Your task to perform on an android device: Go to wifi settings Image 0: 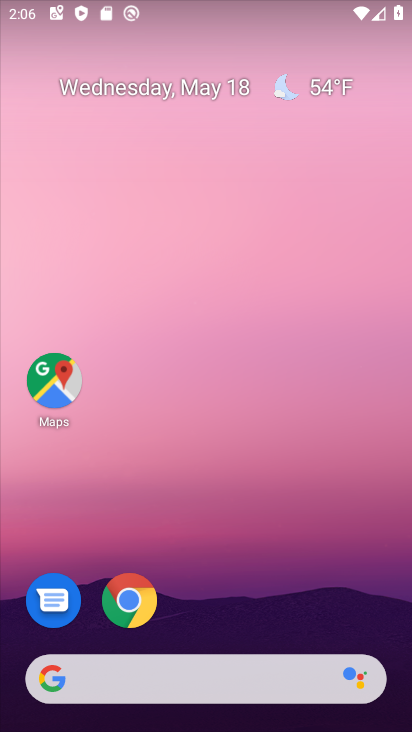
Step 0: drag from (187, 12) to (251, 524)
Your task to perform on an android device: Go to wifi settings Image 1: 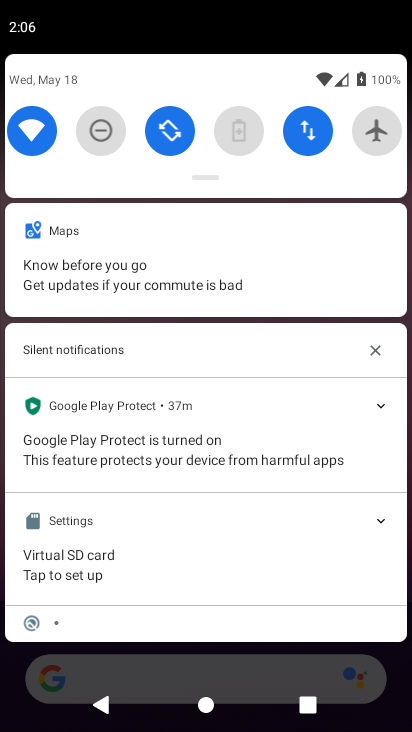
Step 1: click (47, 122)
Your task to perform on an android device: Go to wifi settings Image 2: 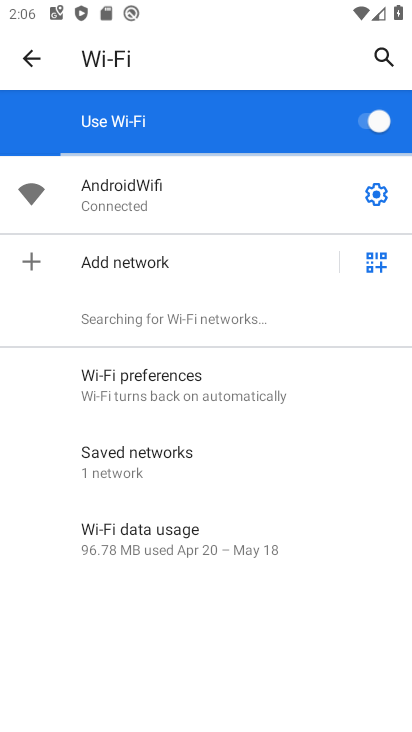
Step 2: task complete